Your task to perform on an android device: read, delete, or share a saved page in the chrome app Image 0: 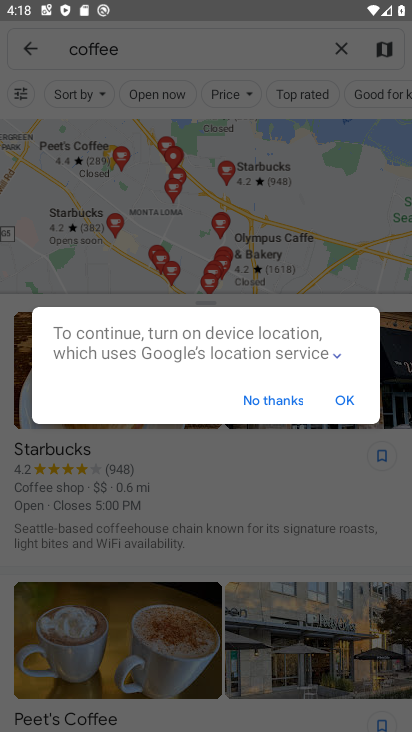
Step 0: press home button
Your task to perform on an android device: read, delete, or share a saved page in the chrome app Image 1: 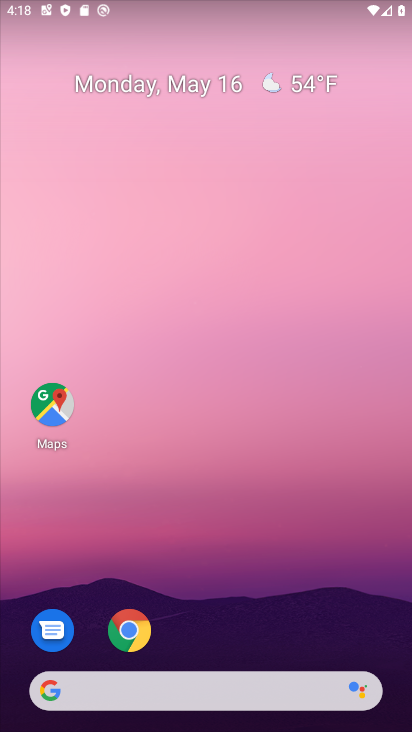
Step 1: drag from (240, 644) to (178, 63)
Your task to perform on an android device: read, delete, or share a saved page in the chrome app Image 2: 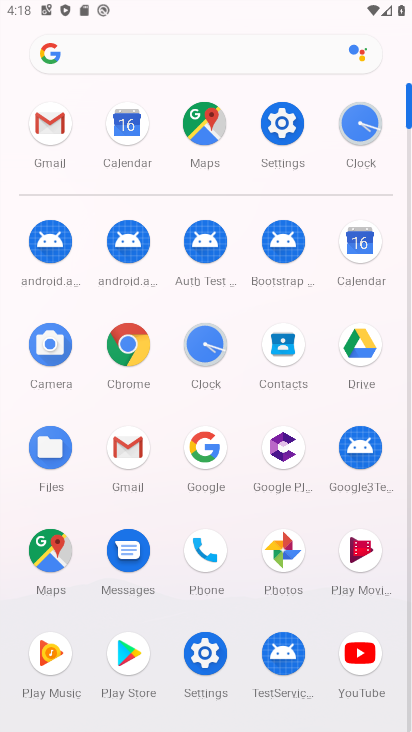
Step 2: click (129, 352)
Your task to perform on an android device: read, delete, or share a saved page in the chrome app Image 3: 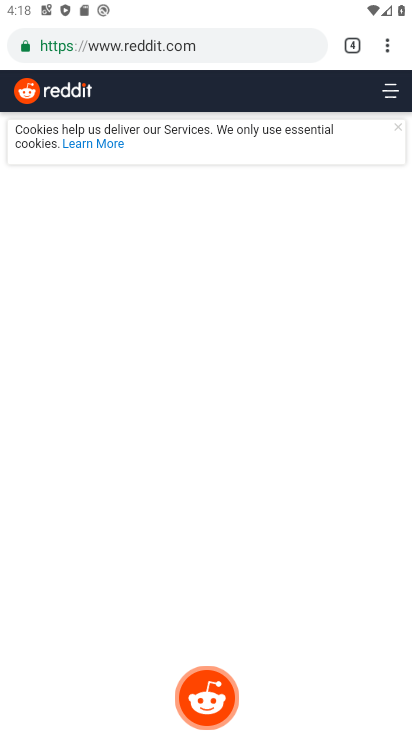
Step 3: click (394, 45)
Your task to perform on an android device: read, delete, or share a saved page in the chrome app Image 4: 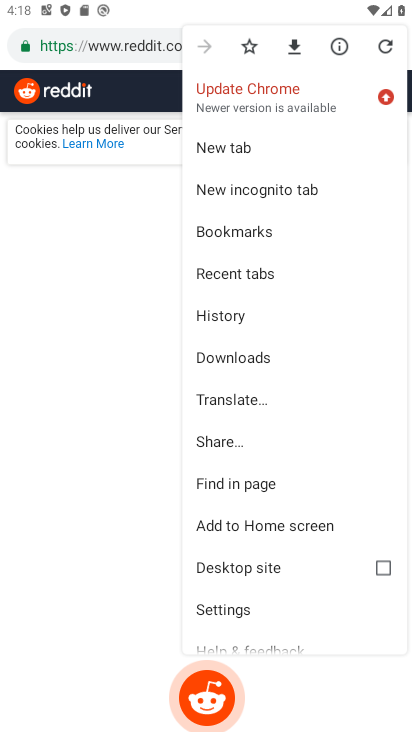
Step 4: click (272, 366)
Your task to perform on an android device: read, delete, or share a saved page in the chrome app Image 5: 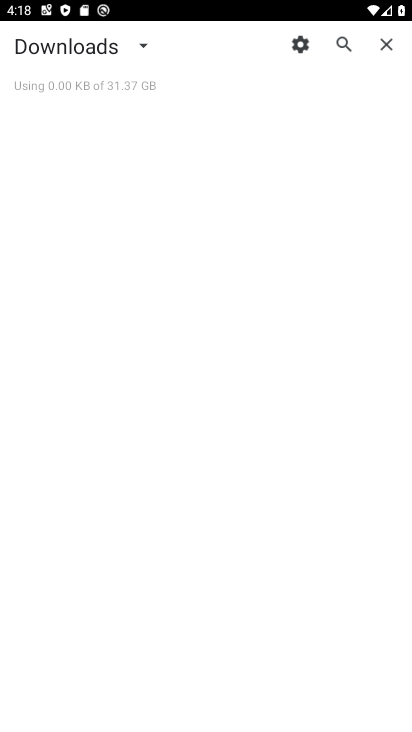
Step 5: click (139, 44)
Your task to perform on an android device: read, delete, or share a saved page in the chrome app Image 6: 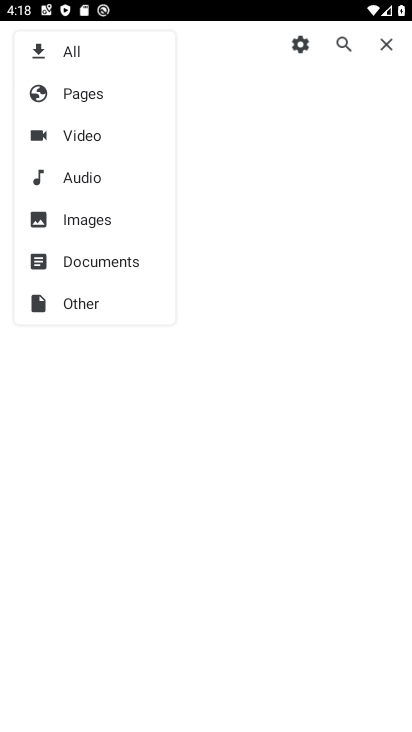
Step 6: click (115, 96)
Your task to perform on an android device: read, delete, or share a saved page in the chrome app Image 7: 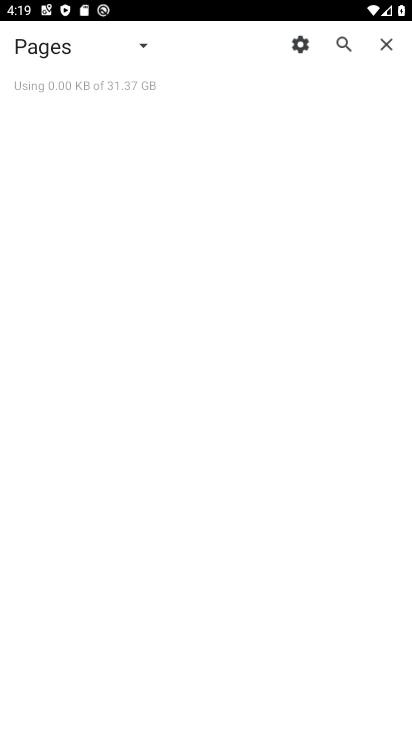
Step 7: task complete